Your task to perform on an android device: Open Google Maps Image 0: 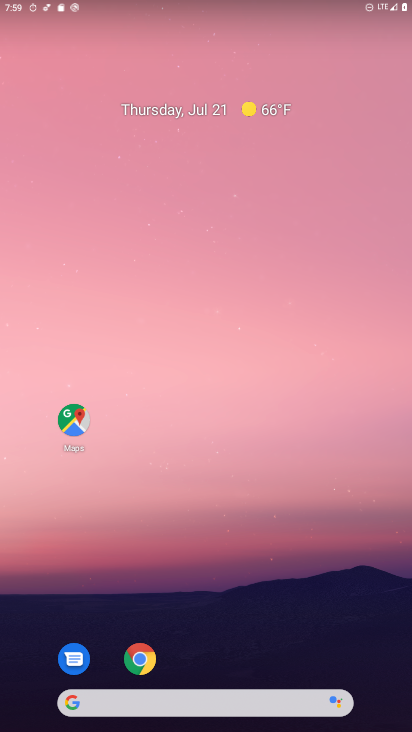
Step 0: drag from (192, 494) to (335, 86)
Your task to perform on an android device: Open Google Maps Image 1: 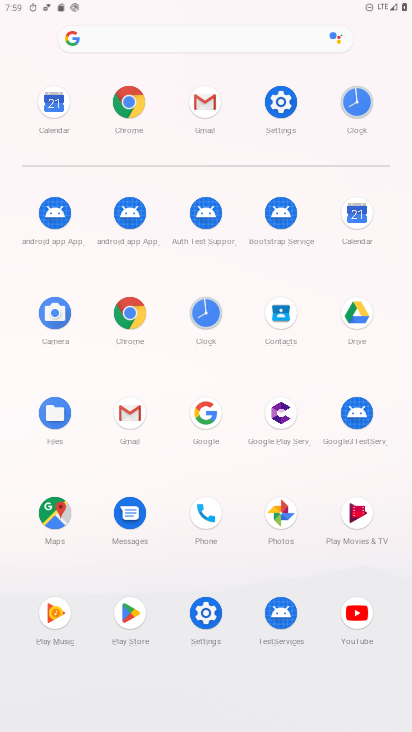
Step 1: click (65, 516)
Your task to perform on an android device: Open Google Maps Image 2: 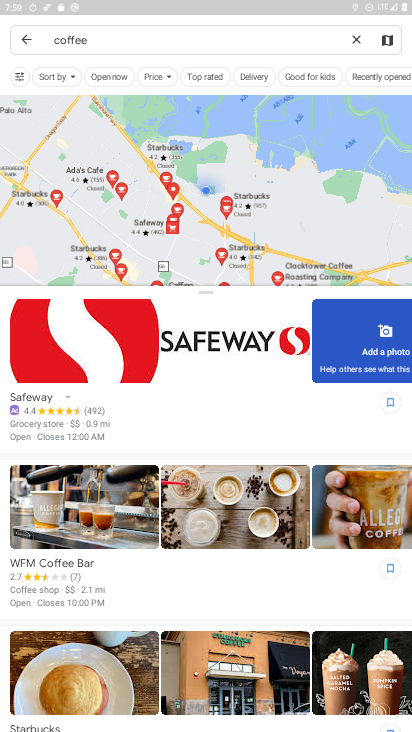
Step 2: task complete